Your task to perform on an android device: turn off location Image 0: 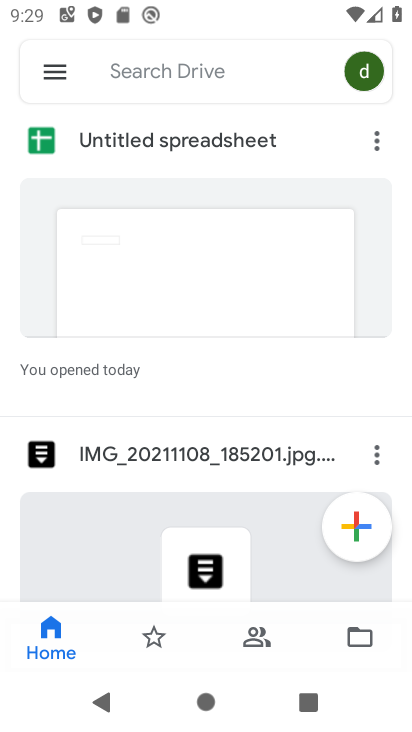
Step 0: press home button
Your task to perform on an android device: turn off location Image 1: 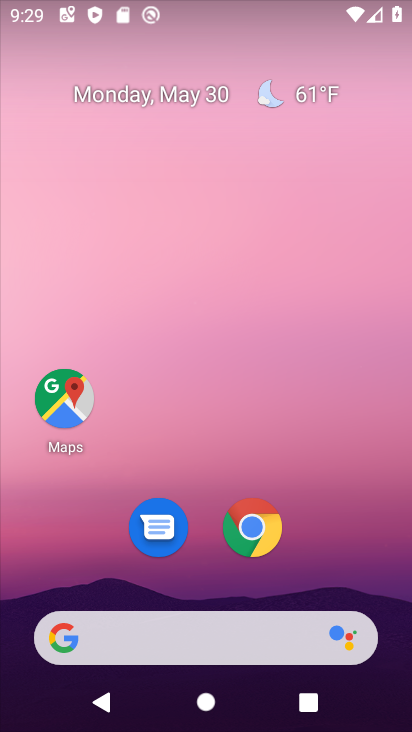
Step 1: drag from (211, 585) to (236, 8)
Your task to perform on an android device: turn off location Image 2: 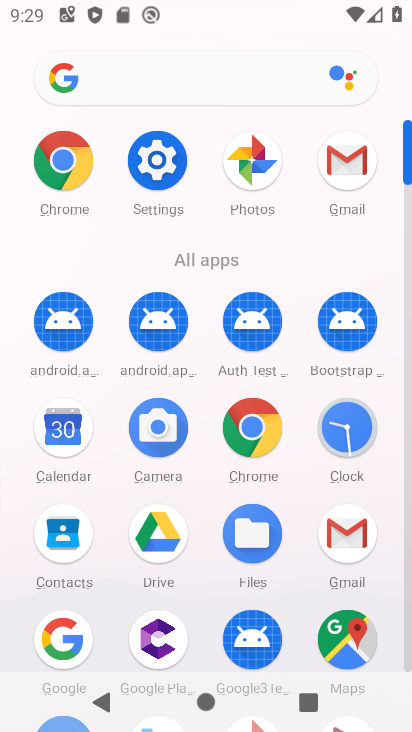
Step 2: click (151, 166)
Your task to perform on an android device: turn off location Image 3: 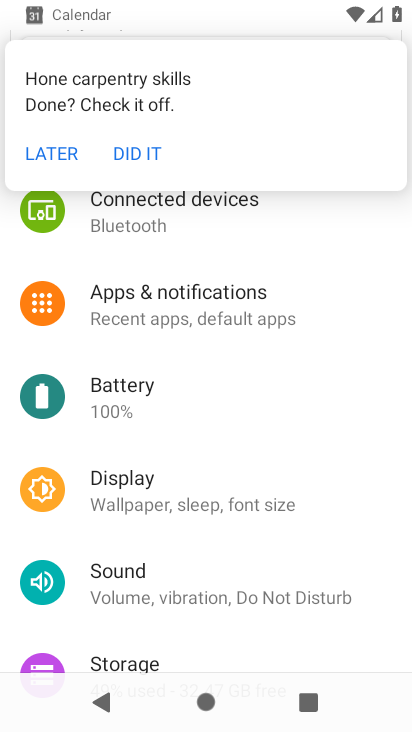
Step 3: drag from (152, 529) to (148, 182)
Your task to perform on an android device: turn off location Image 4: 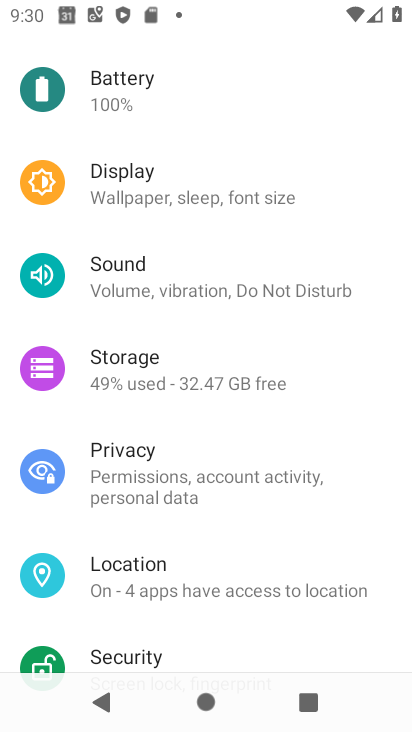
Step 4: click (108, 586)
Your task to perform on an android device: turn off location Image 5: 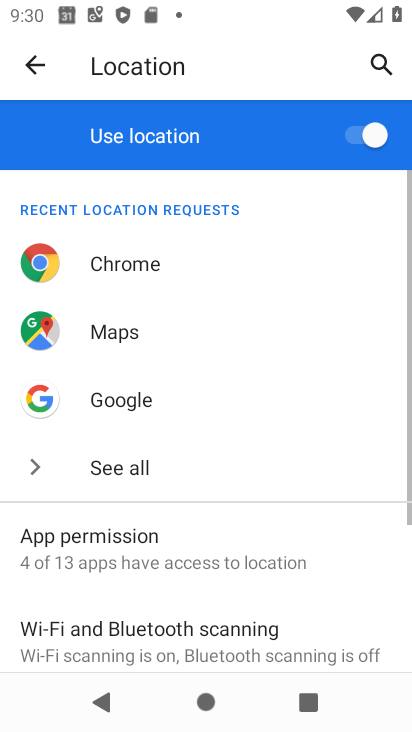
Step 5: click (362, 136)
Your task to perform on an android device: turn off location Image 6: 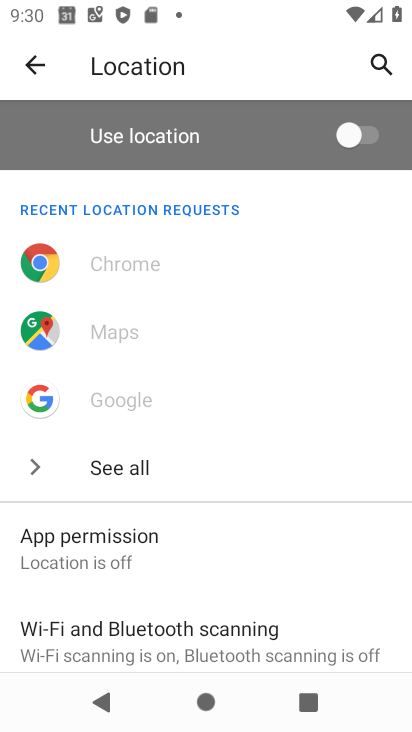
Step 6: task complete